Your task to perform on an android device: make emails show in primary in the gmail app Image 0: 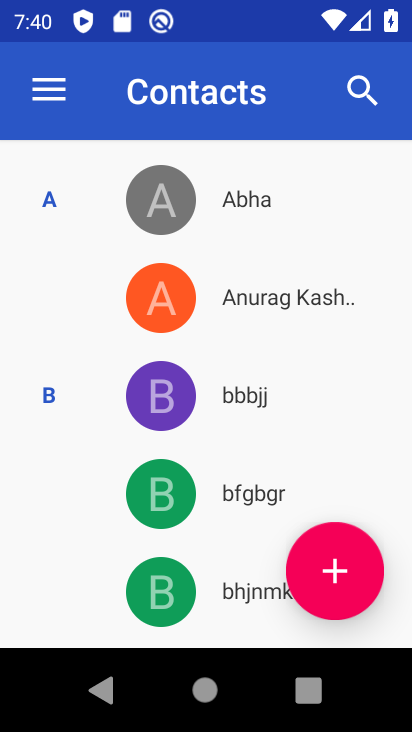
Step 0: press back button
Your task to perform on an android device: make emails show in primary in the gmail app Image 1: 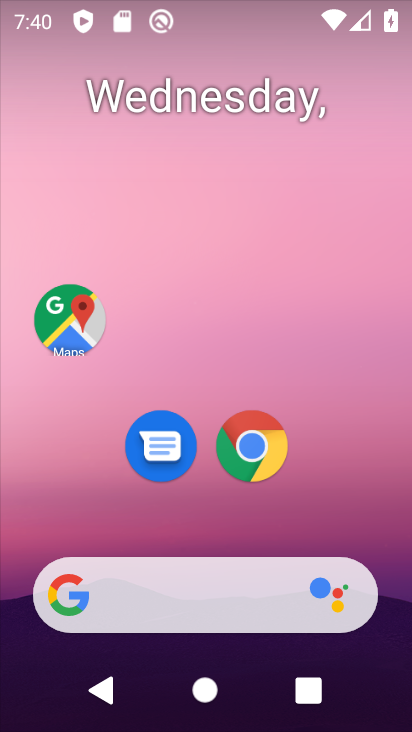
Step 1: drag from (370, 712) to (284, 0)
Your task to perform on an android device: make emails show in primary in the gmail app Image 2: 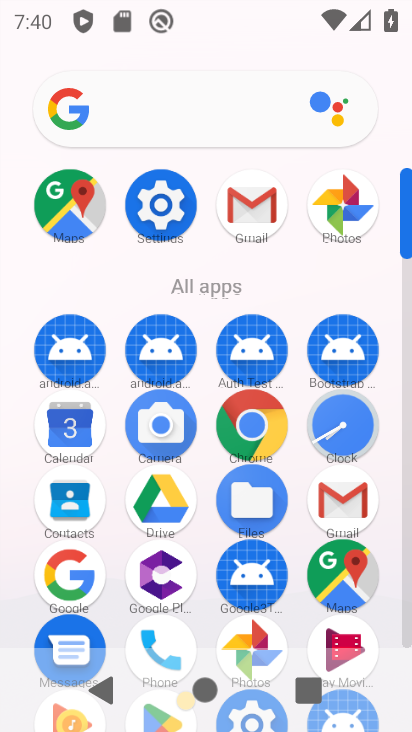
Step 2: click (339, 501)
Your task to perform on an android device: make emails show in primary in the gmail app Image 3: 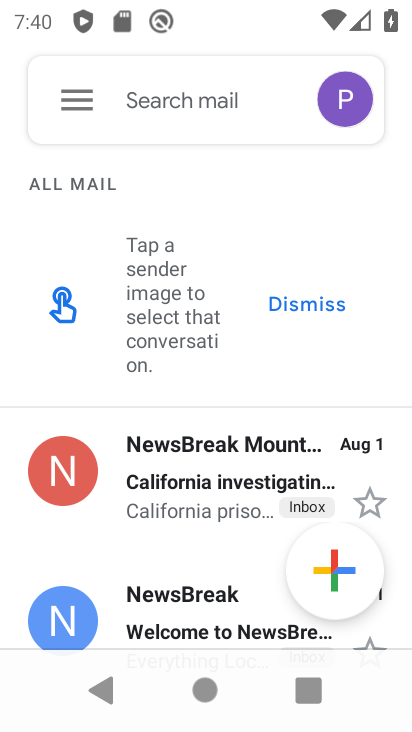
Step 3: click (87, 93)
Your task to perform on an android device: make emails show in primary in the gmail app Image 4: 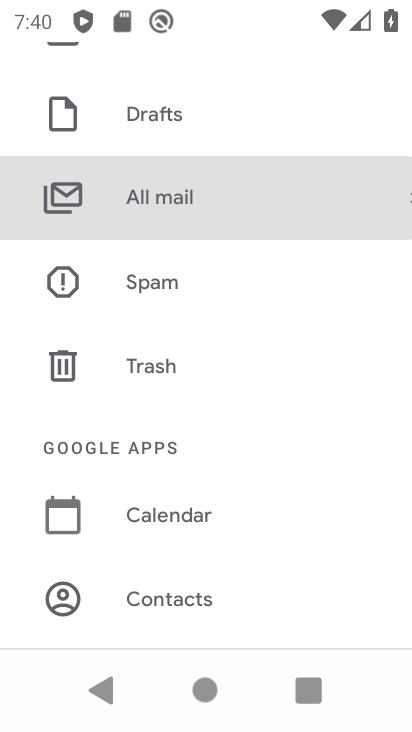
Step 4: drag from (276, 620) to (260, 22)
Your task to perform on an android device: make emails show in primary in the gmail app Image 5: 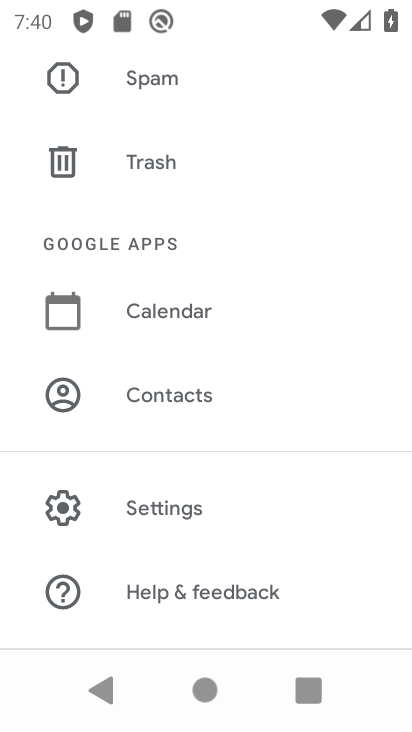
Step 5: click (161, 513)
Your task to perform on an android device: make emails show in primary in the gmail app Image 6: 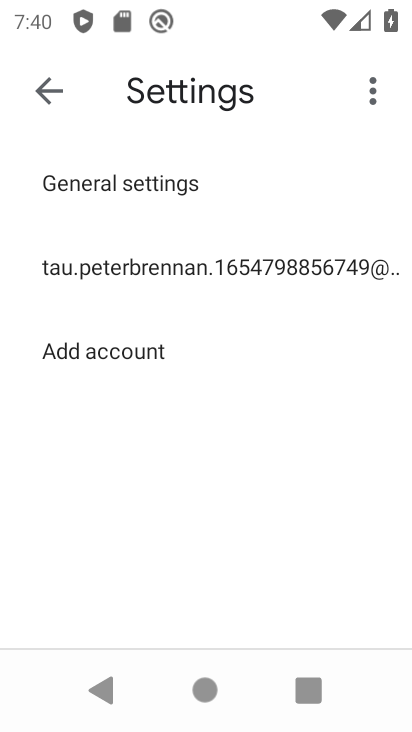
Step 6: click (149, 264)
Your task to perform on an android device: make emails show in primary in the gmail app Image 7: 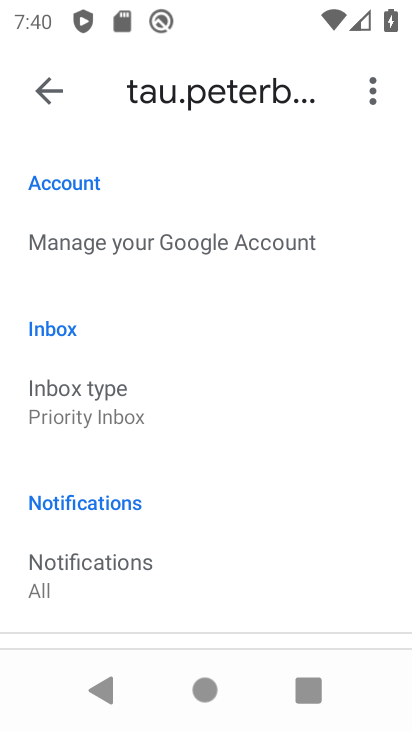
Step 7: click (55, 415)
Your task to perform on an android device: make emails show in primary in the gmail app Image 8: 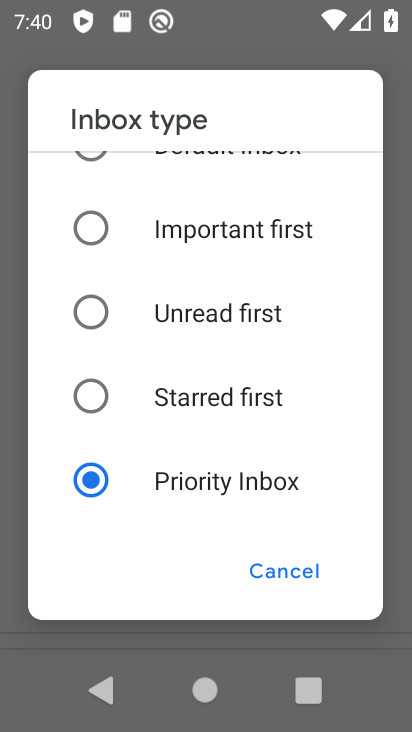
Step 8: drag from (139, 255) to (152, 500)
Your task to perform on an android device: make emails show in primary in the gmail app Image 9: 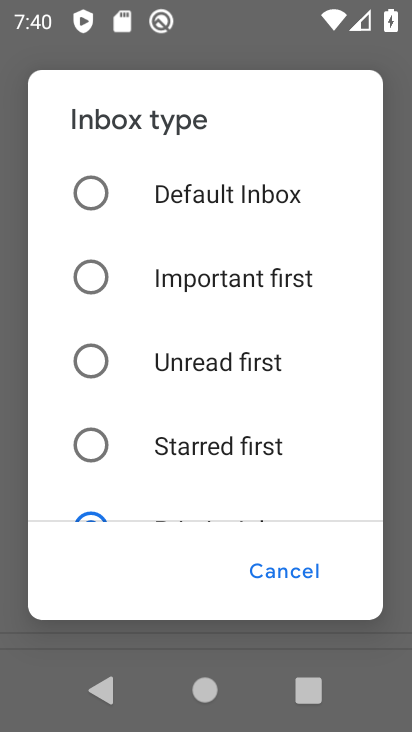
Step 9: click (80, 191)
Your task to perform on an android device: make emails show in primary in the gmail app Image 10: 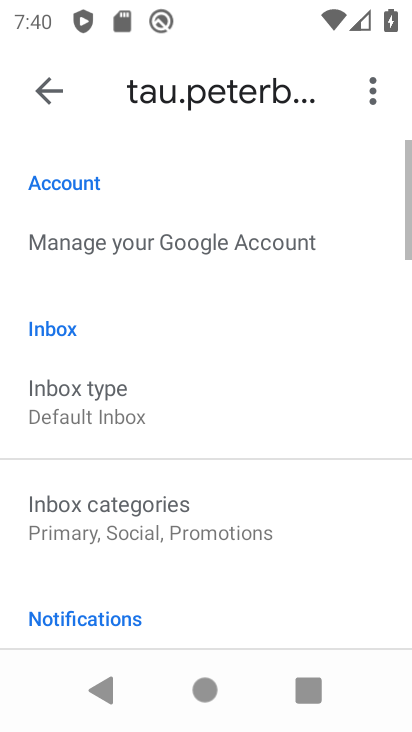
Step 10: click (73, 523)
Your task to perform on an android device: make emails show in primary in the gmail app Image 11: 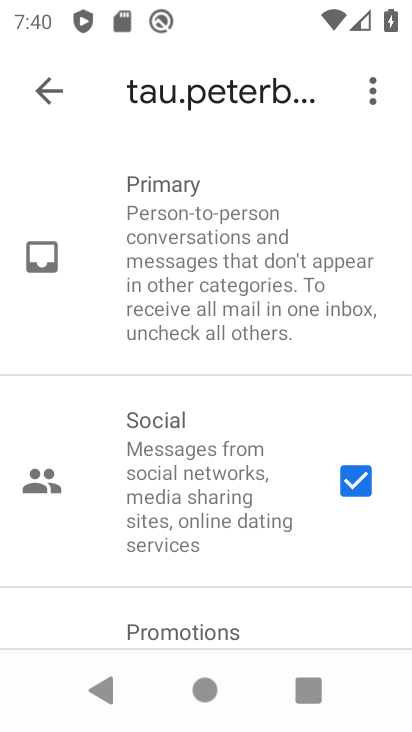
Step 11: click (342, 474)
Your task to perform on an android device: make emails show in primary in the gmail app Image 12: 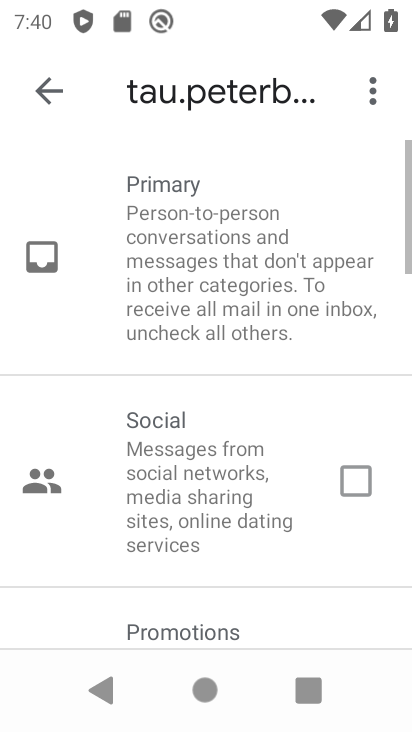
Step 12: drag from (294, 517) to (293, 192)
Your task to perform on an android device: make emails show in primary in the gmail app Image 13: 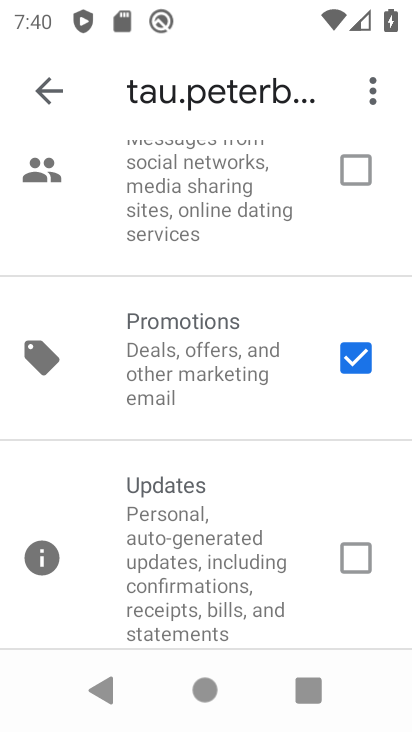
Step 13: click (367, 349)
Your task to perform on an android device: make emails show in primary in the gmail app Image 14: 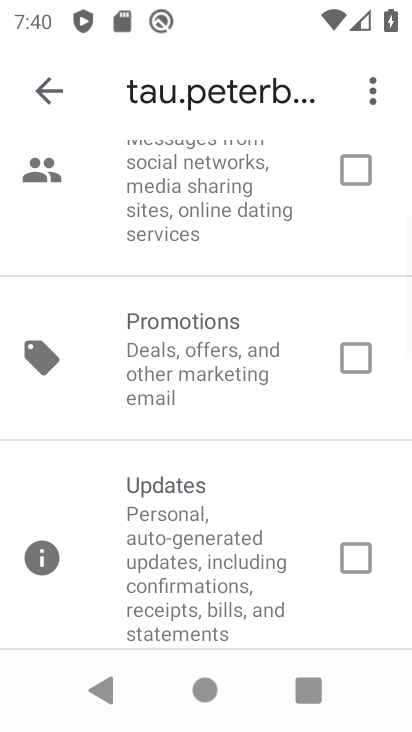
Step 14: click (35, 87)
Your task to perform on an android device: make emails show in primary in the gmail app Image 15: 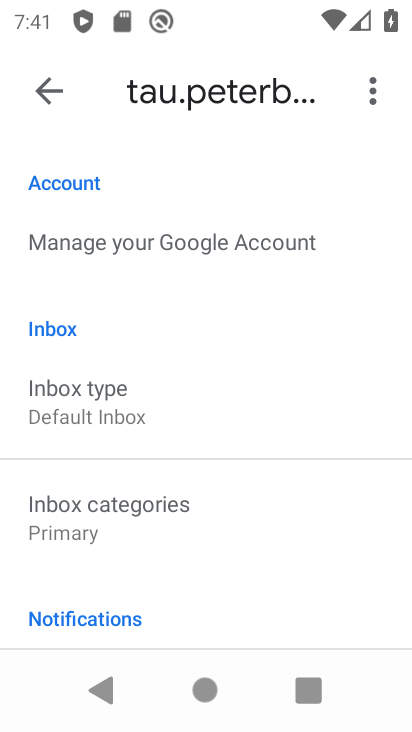
Step 15: task complete